Your task to perform on an android device: Turn on the flashlight Image 0: 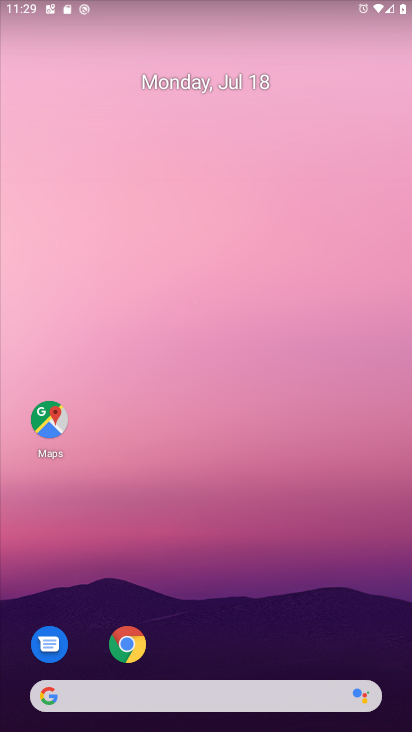
Step 0: drag from (262, 652) to (282, 78)
Your task to perform on an android device: Turn on the flashlight Image 1: 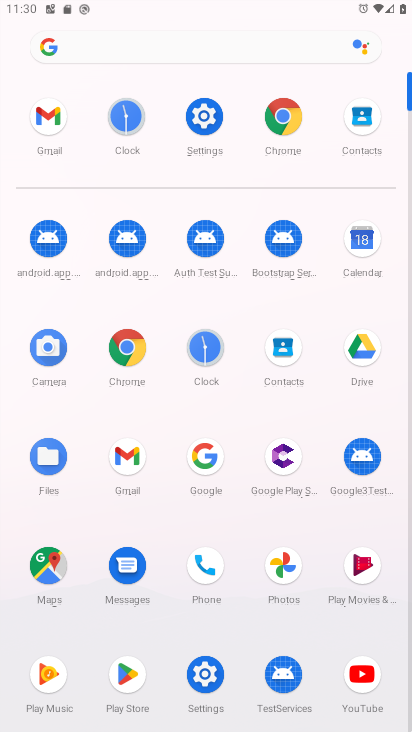
Step 1: task complete